Your task to perform on an android device: open the mobile data screen to see how much data has been used Image 0: 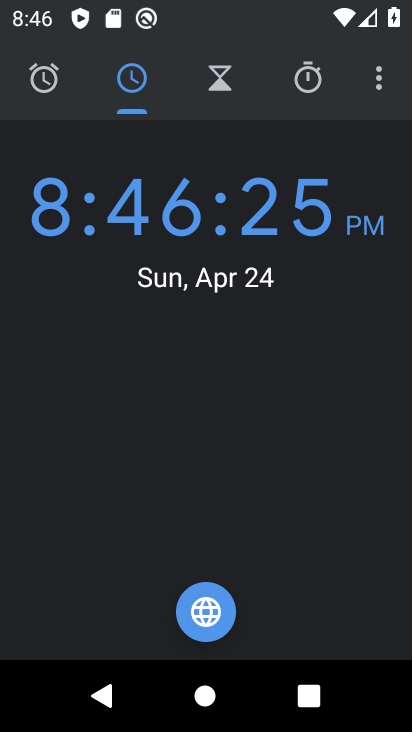
Step 0: press home button
Your task to perform on an android device: open the mobile data screen to see how much data has been used Image 1: 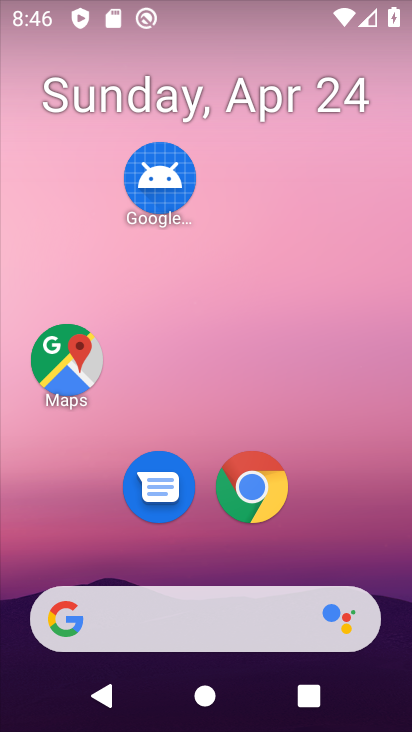
Step 1: drag from (322, 522) to (247, 128)
Your task to perform on an android device: open the mobile data screen to see how much data has been used Image 2: 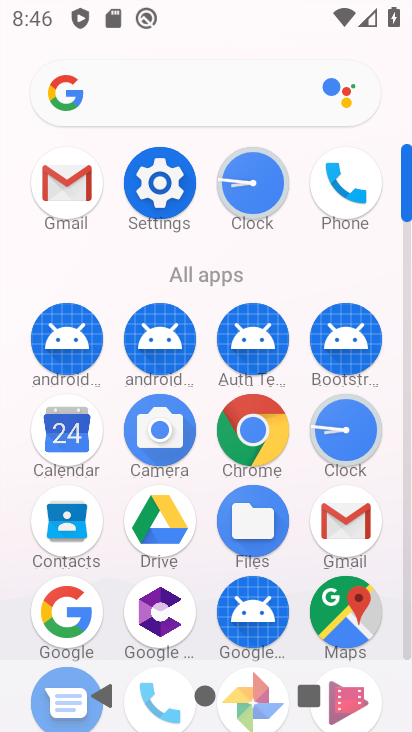
Step 2: click (172, 171)
Your task to perform on an android device: open the mobile data screen to see how much data has been used Image 3: 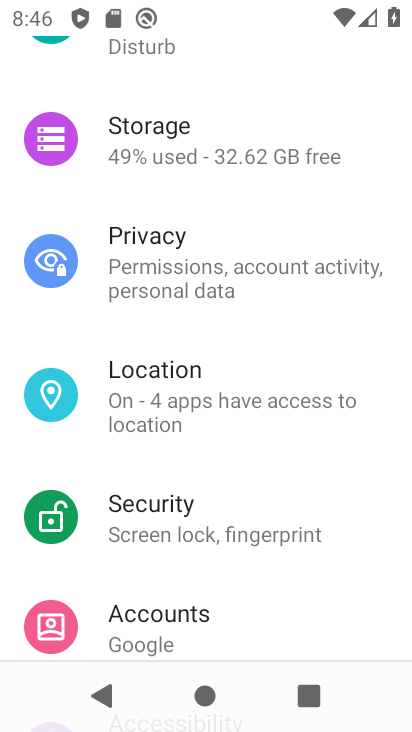
Step 3: drag from (343, 168) to (316, 668)
Your task to perform on an android device: open the mobile data screen to see how much data has been used Image 4: 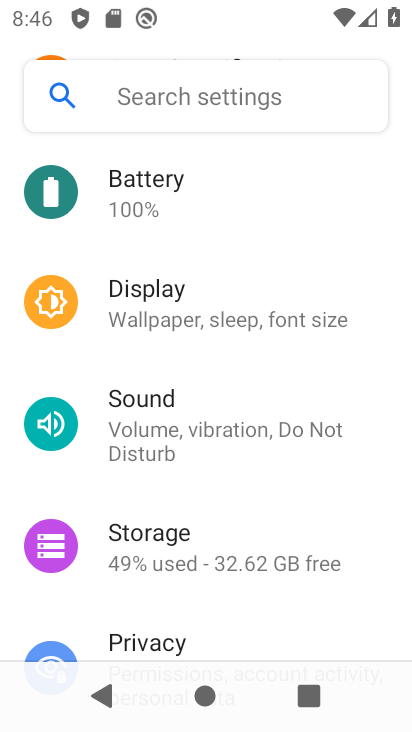
Step 4: drag from (321, 288) to (284, 719)
Your task to perform on an android device: open the mobile data screen to see how much data has been used Image 5: 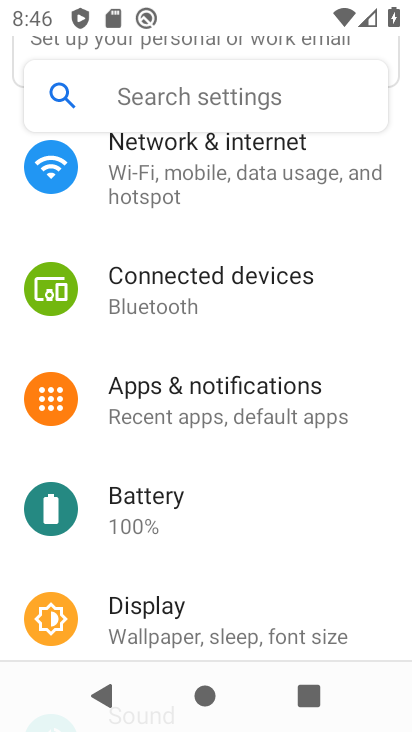
Step 5: click (225, 179)
Your task to perform on an android device: open the mobile data screen to see how much data has been used Image 6: 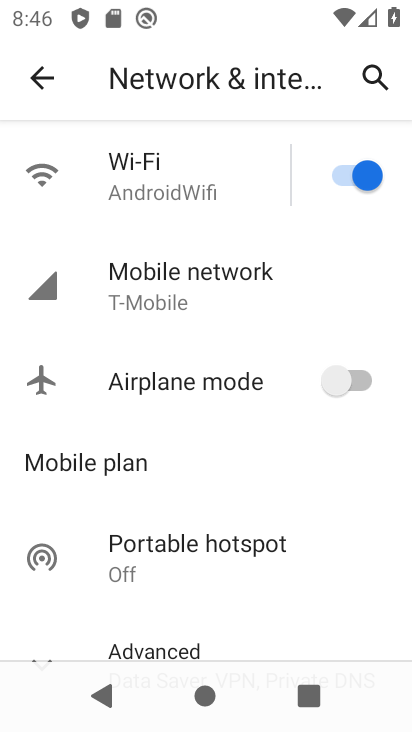
Step 6: click (154, 300)
Your task to perform on an android device: open the mobile data screen to see how much data has been used Image 7: 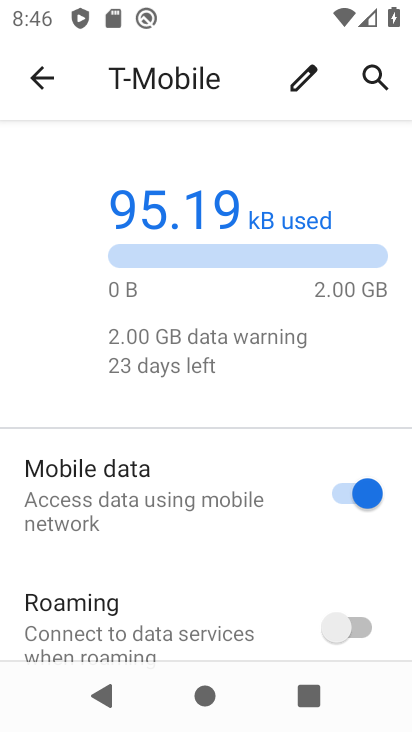
Step 7: drag from (152, 572) to (158, 169)
Your task to perform on an android device: open the mobile data screen to see how much data has been used Image 8: 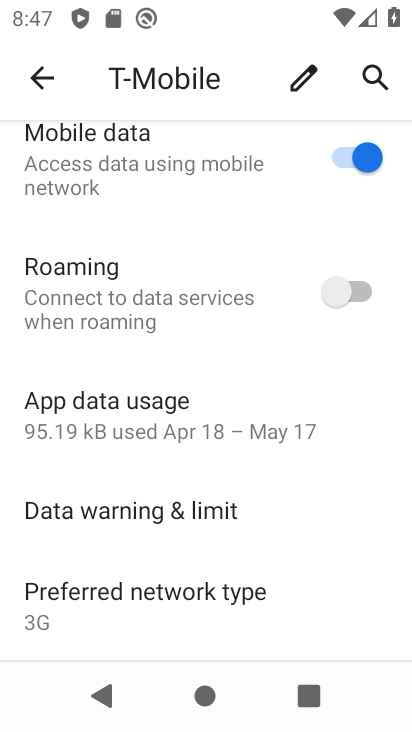
Step 8: drag from (148, 588) to (146, 355)
Your task to perform on an android device: open the mobile data screen to see how much data has been used Image 9: 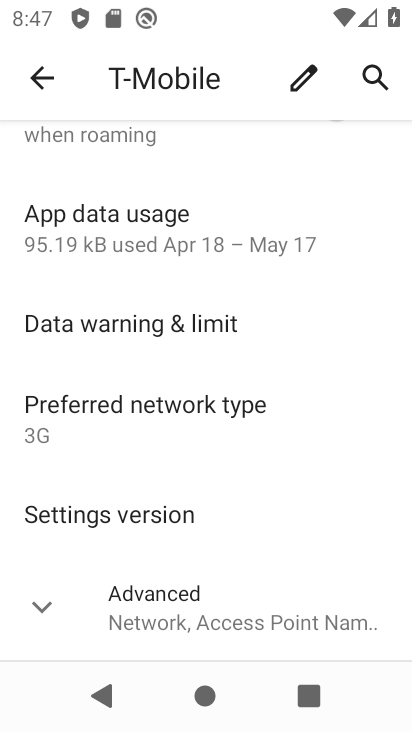
Step 9: click (146, 247)
Your task to perform on an android device: open the mobile data screen to see how much data has been used Image 10: 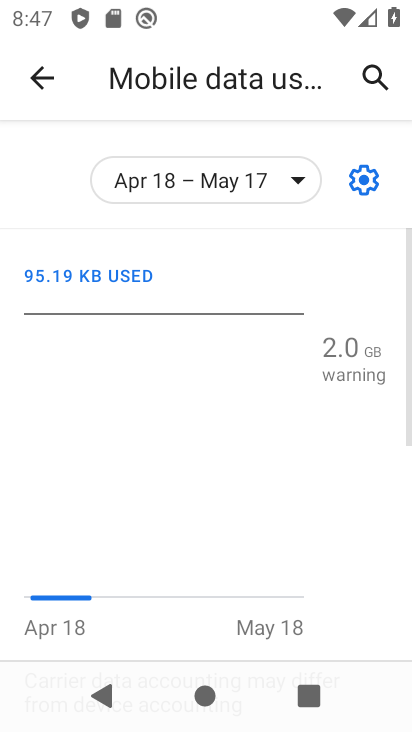
Step 10: task complete